Your task to perform on an android device: change notification settings in the gmail app Image 0: 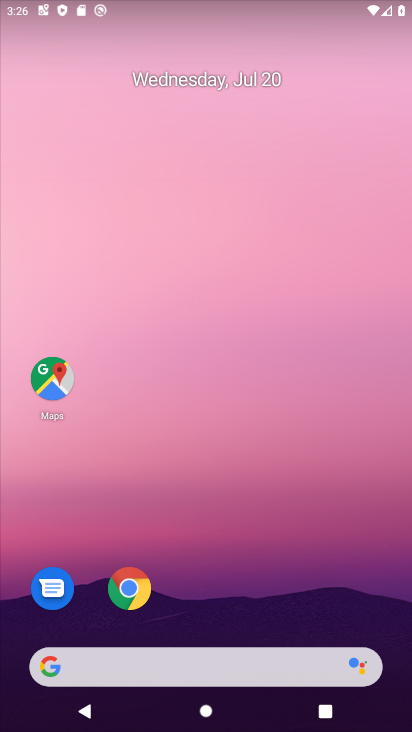
Step 0: drag from (304, 570) to (272, 25)
Your task to perform on an android device: change notification settings in the gmail app Image 1: 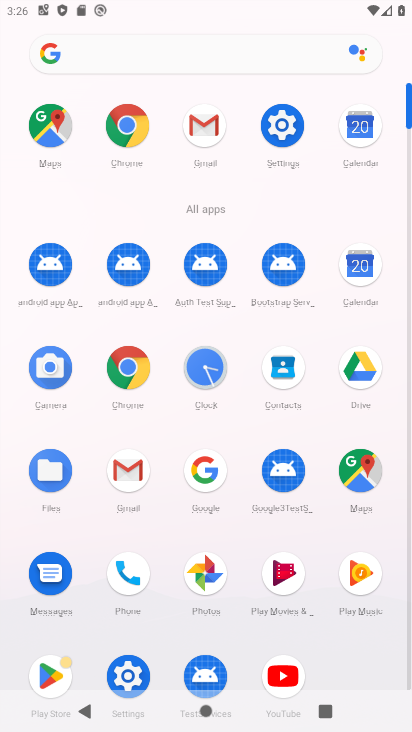
Step 1: click (192, 136)
Your task to perform on an android device: change notification settings in the gmail app Image 2: 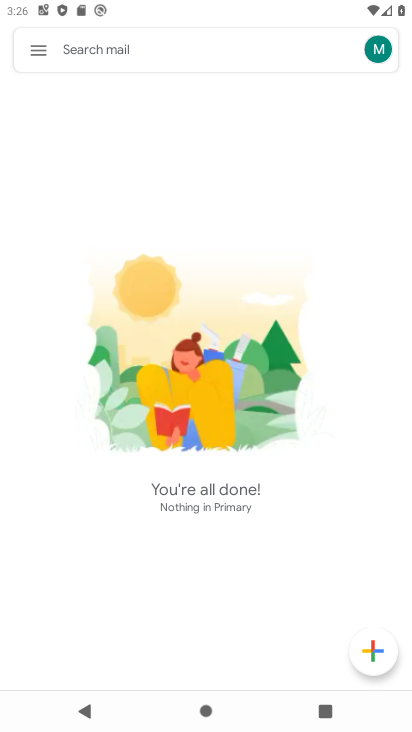
Step 2: click (34, 43)
Your task to perform on an android device: change notification settings in the gmail app Image 3: 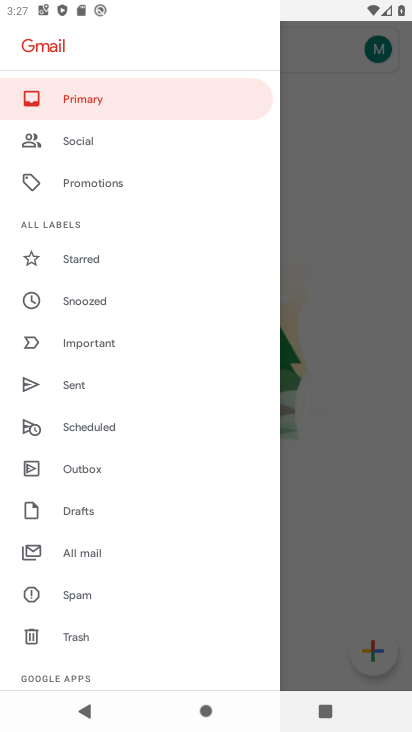
Step 3: drag from (86, 644) to (185, 154)
Your task to perform on an android device: change notification settings in the gmail app Image 4: 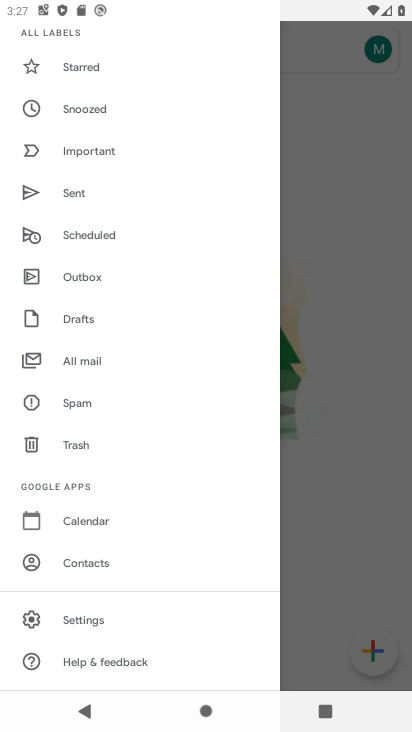
Step 4: click (68, 628)
Your task to perform on an android device: change notification settings in the gmail app Image 5: 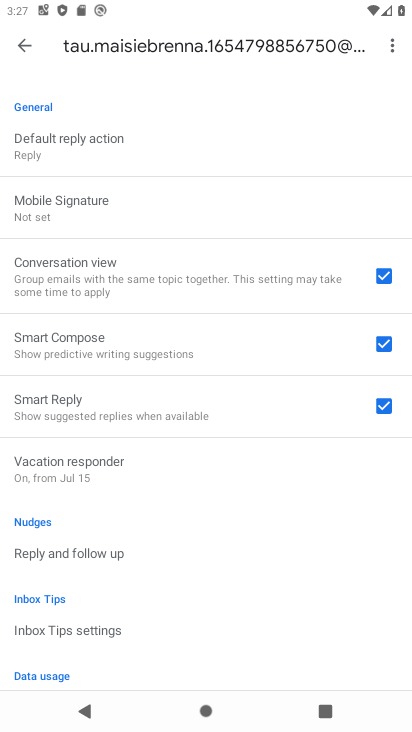
Step 5: drag from (161, 123) to (193, 496)
Your task to perform on an android device: change notification settings in the gmail app Image 6: 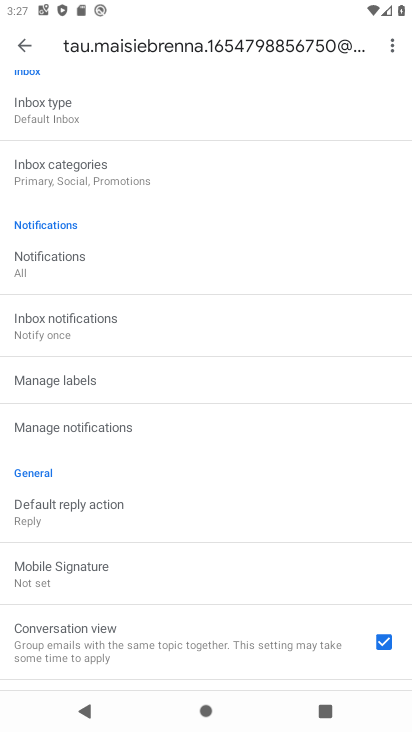
Step 6: click (96, 371)
Your task to perform on an android device: change notification settings in the gmail app Image 7: 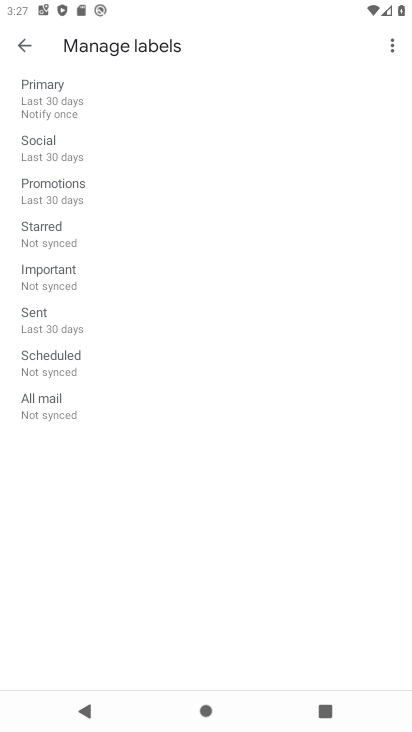
Step 7: click (31, 40)
Your task to perform on an android device: change notification settings in the gmail app Image 8: 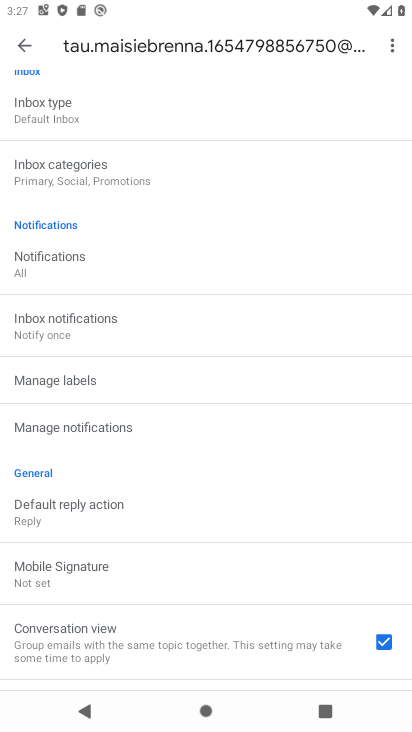
Step 8: click (90, 430)
Your task to perform on an android device: change notification settings in the gmail app Image 9: 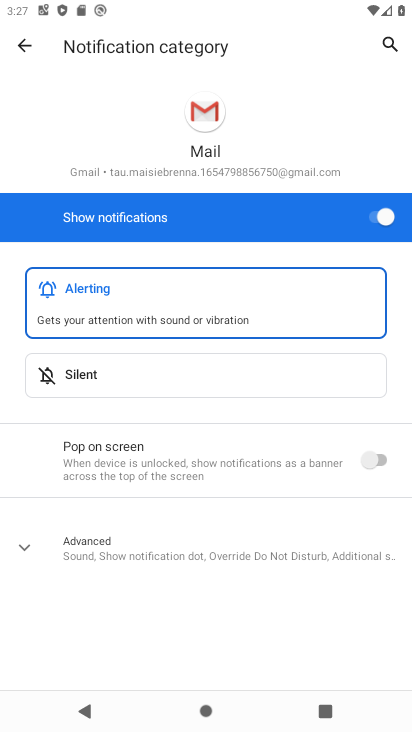
Step 9: click (372, 229)
Your task to perform on an android device: change notification settings in the gmail app Image 10: 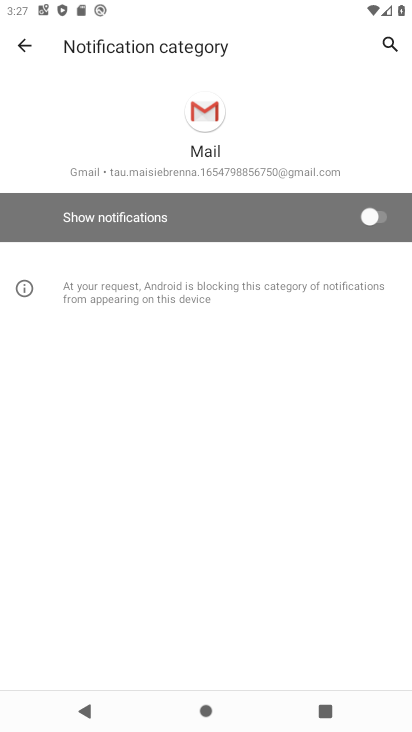
Step 10: task complete